Your task to perform on an android device: Open calendar and show me the third week of next month Image 0: 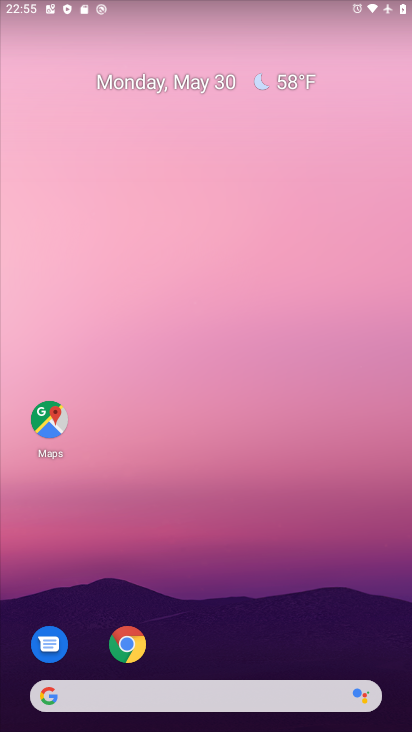
Step 0: drag from (395, 638) to (309, 102)
Your task to perform on an android device: Open calendar and show me the third week of next month Image 1: 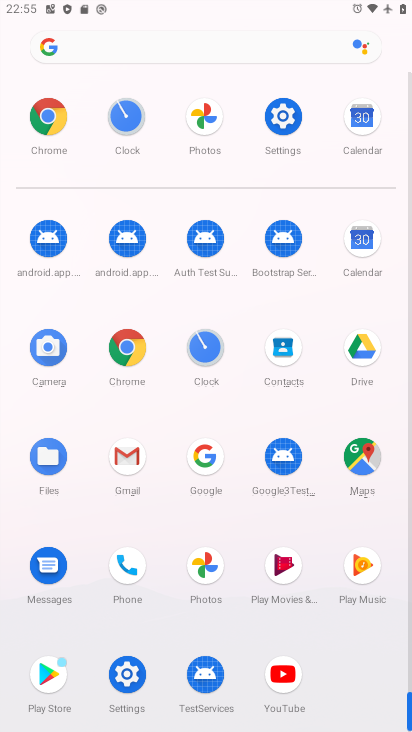
Step 1: click (361, 233)
Your task to perform on an android device: Open calendar and show me the third week of next month Image 2: 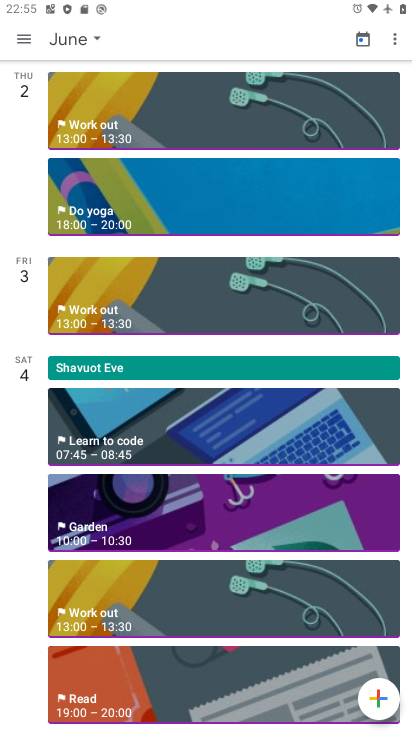
Step 2: click (21, 34)
Your task to perform on an android device: Open calendar and show me the third week of next month Image 3: 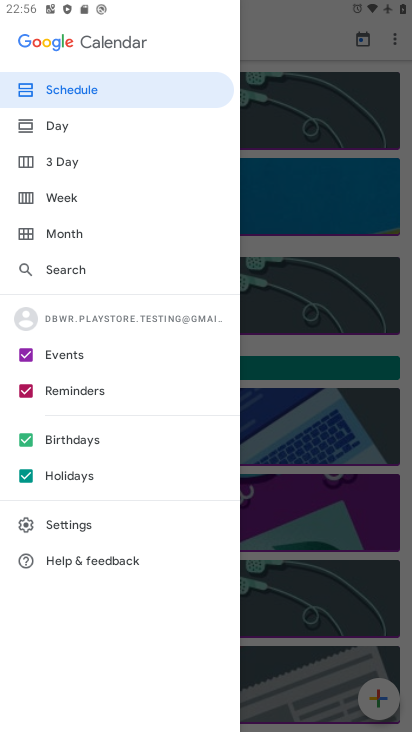
Step 3: click (60, 188)
Your task to perform on an android device: Open calendar and show me the third week of next month Image 4: 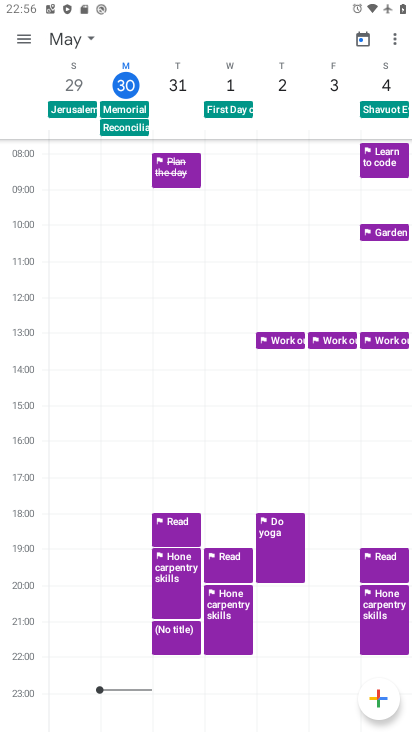
Step 4: click (85, 32)
Your task to perform on an android device: Open calendar and show me the third week of next month Image 5: 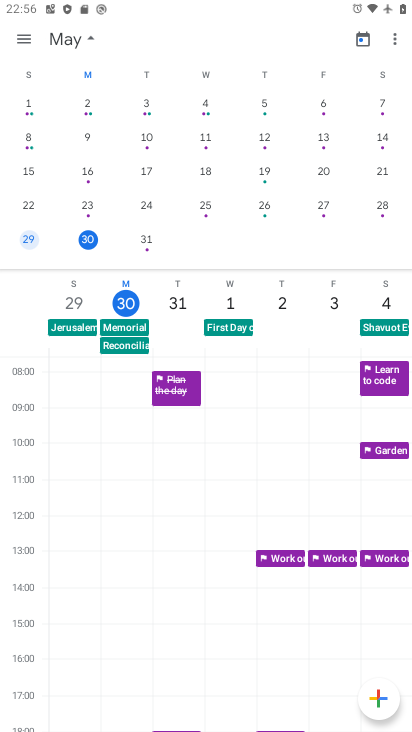
Step 5: drag from (381, 185) to (111, 181)
Your task to perform on an android device: Open calendar and show me the third week of next month Image 6: 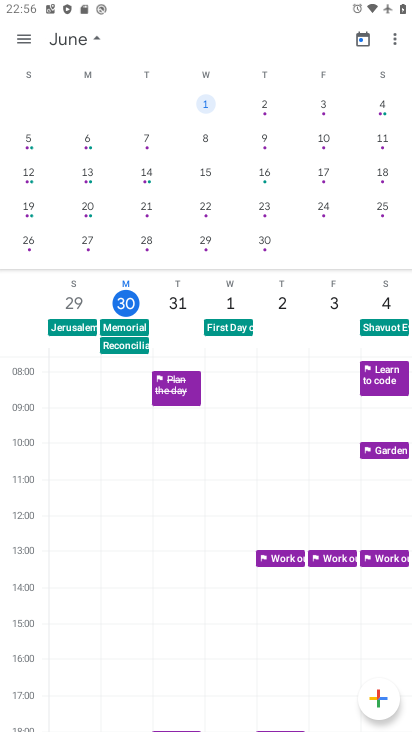
Step 6: click (25, 207)
Your task to perform on an android device: Open calendar and show me the third week of next month Image 7: 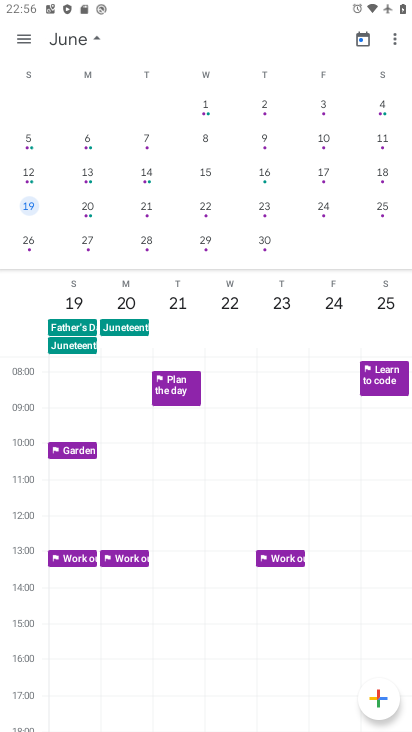
Step 7: task complete